Your task to perform on an android device: Open Chrome and go to the settings page Image 0: 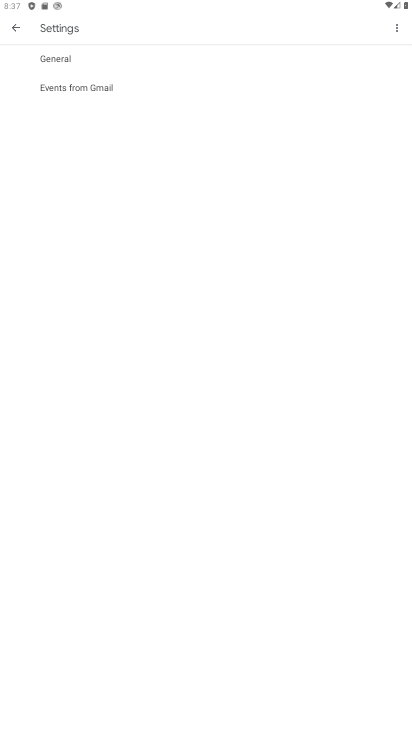
Step 0: press home button
Your task to perform on an android device: Open Chrome and go to the settings page Image 1: 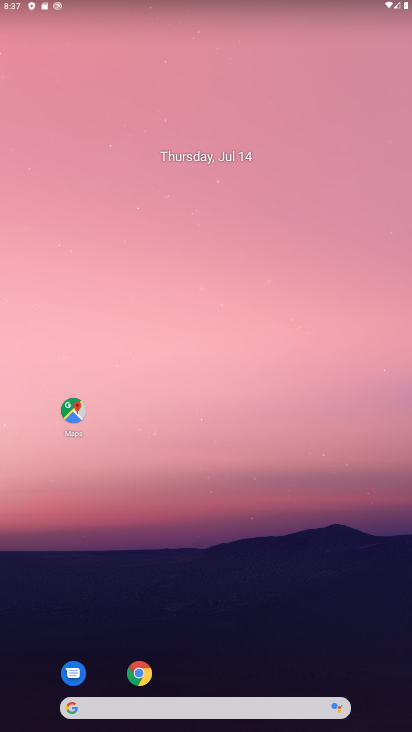
Step 1: click (136, 677)
Your task to perform on an android device: Open Chrome and go to the settings page Image 2: 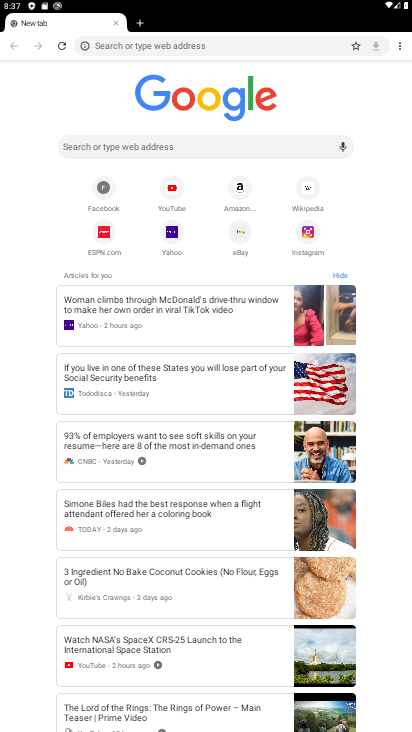
Step 2: task complete